Your task to perform on an android device: turn on location history Image 0: 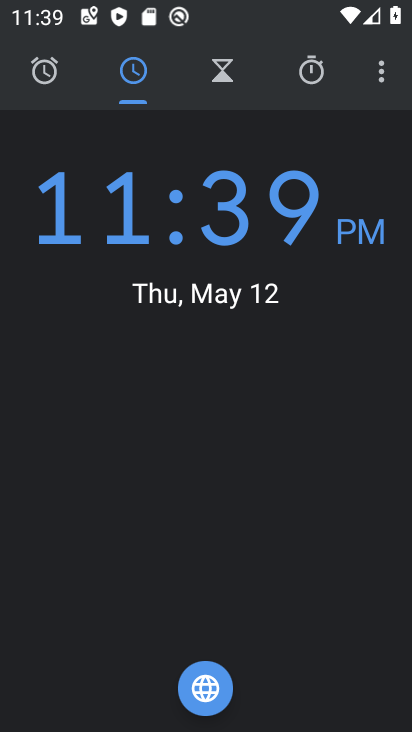
Step 0: press home button
Your task to perform on an android device: turn on location history Image 1: 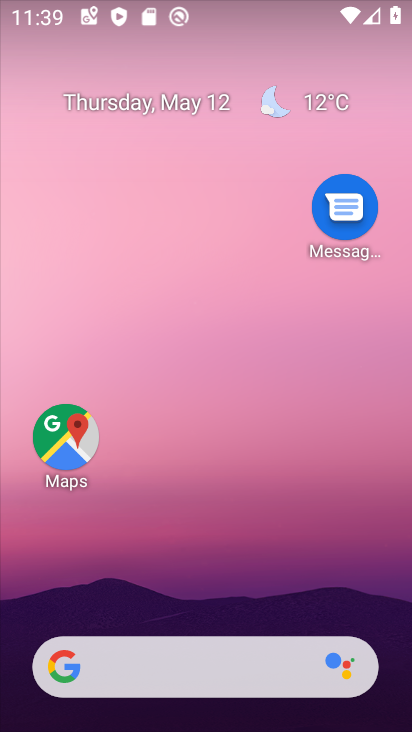
Step 1: click (41, 430)
Your task to perform on an android device: turn on location history Image 2: 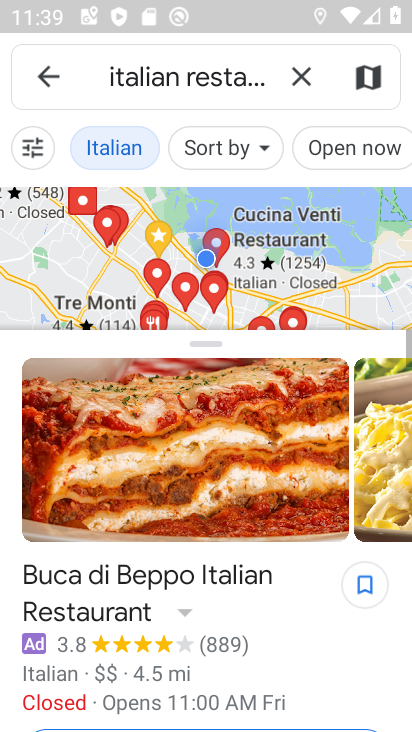
Step 2: click (37, 84)
Your task to perform on an android device: turn on location history Image 3: 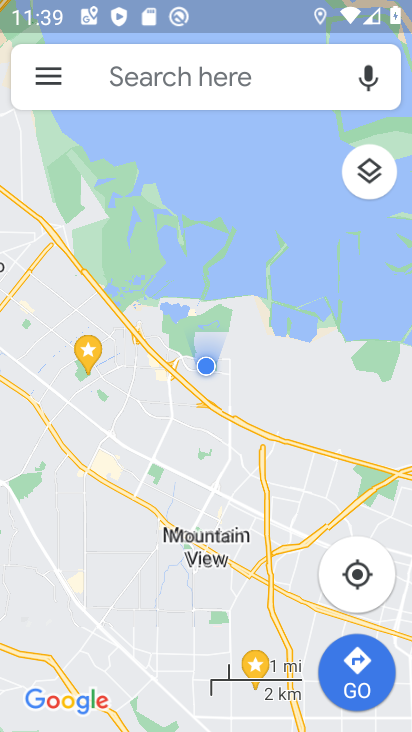
Step 3: click (37, 84)
Your task to perform on an android device: turn on location history Image 4: 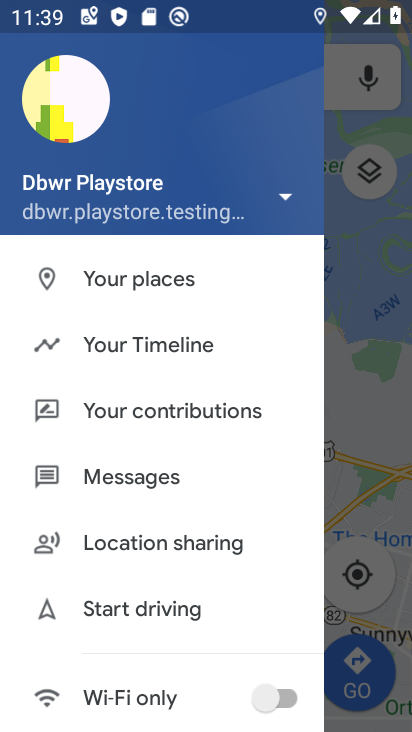
Step 4: drag from (150, 557) to (185, 640)
Your task to perform on an android device: turn on location history Image 5: 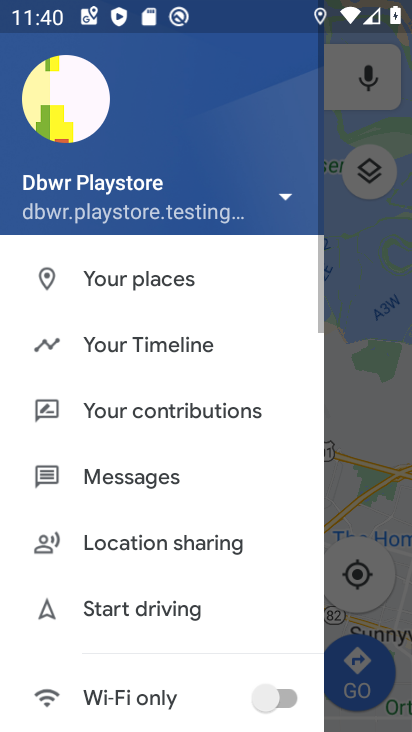
Step 5: click (149, 340)
Your task to perform on an android device: turn on location history Image 6: 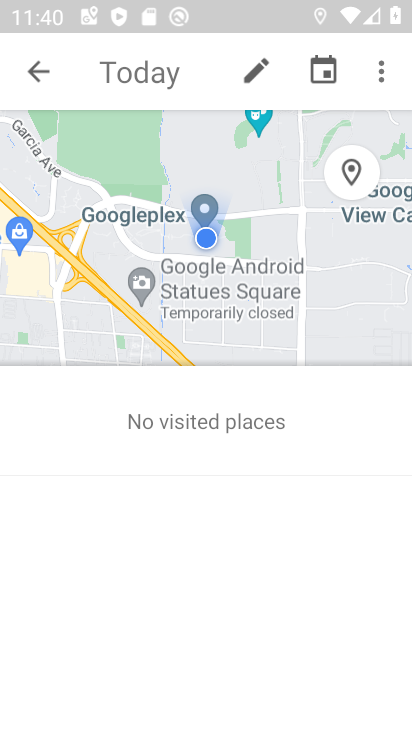
Step 6: click (375, 84)
Your task to perform on an android device: turn on location history Image 7: 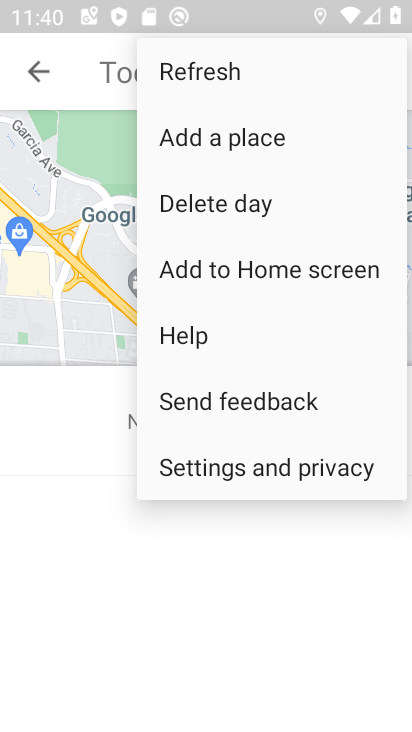
Step 7: click (251, 484)
Your task to perform on an android device: turn on location history Image 8: 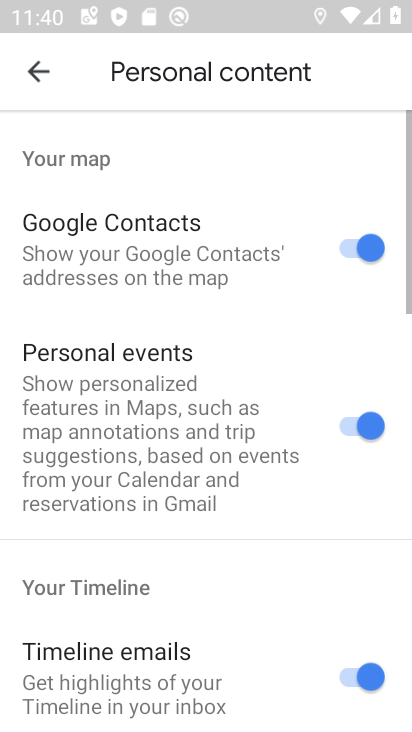
Step 8: drag from (238, 578) to (133, 202)
Your task to perform on an android device: turn on location history Image 9: 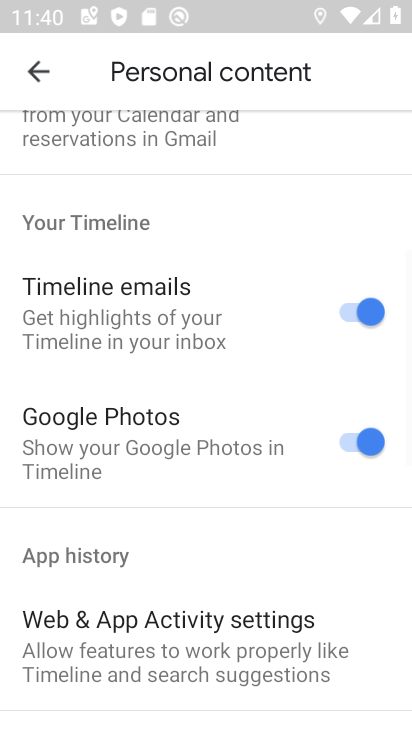
Step 9: drag from (243, 537) to (172, 204)
Your task to perform on an android device: turn on location history Image 10: 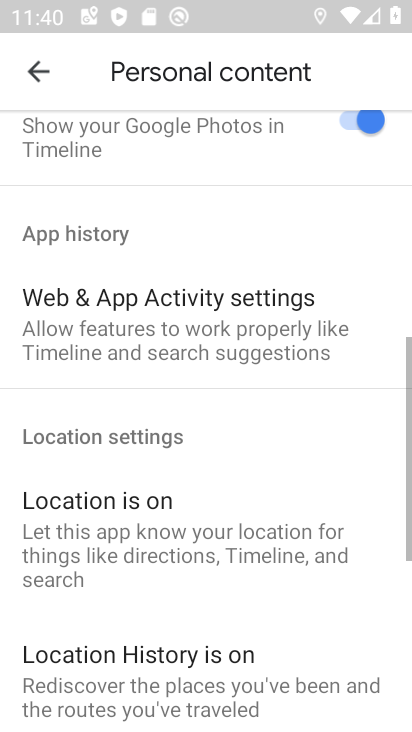
Step 10: drag from (263, 533) to (200, 319)
Your task to perform on an android device: turn on location history Image 11: 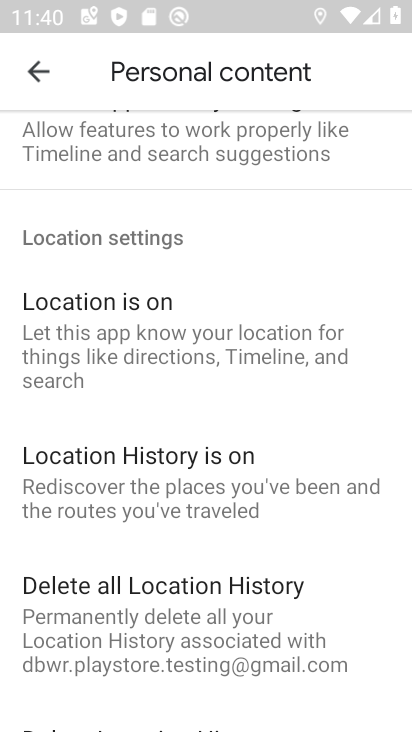
Step 11: click (195, 460)
Your task to perform on an android device: turn on location history Image 12: 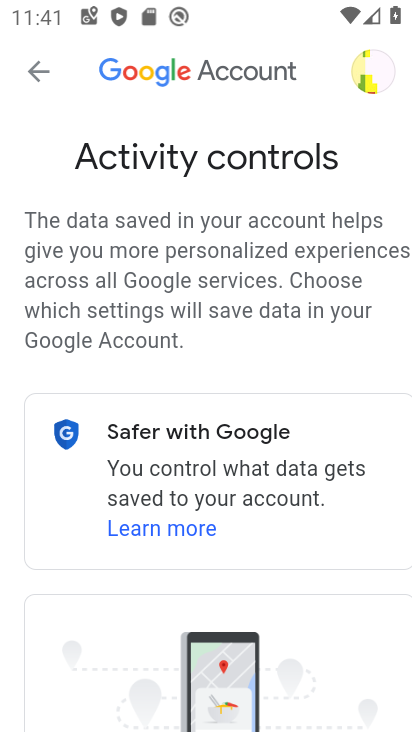
Step 12: task complete